Your task to perform on an android device: Find coffee shops on Maps Image 0: 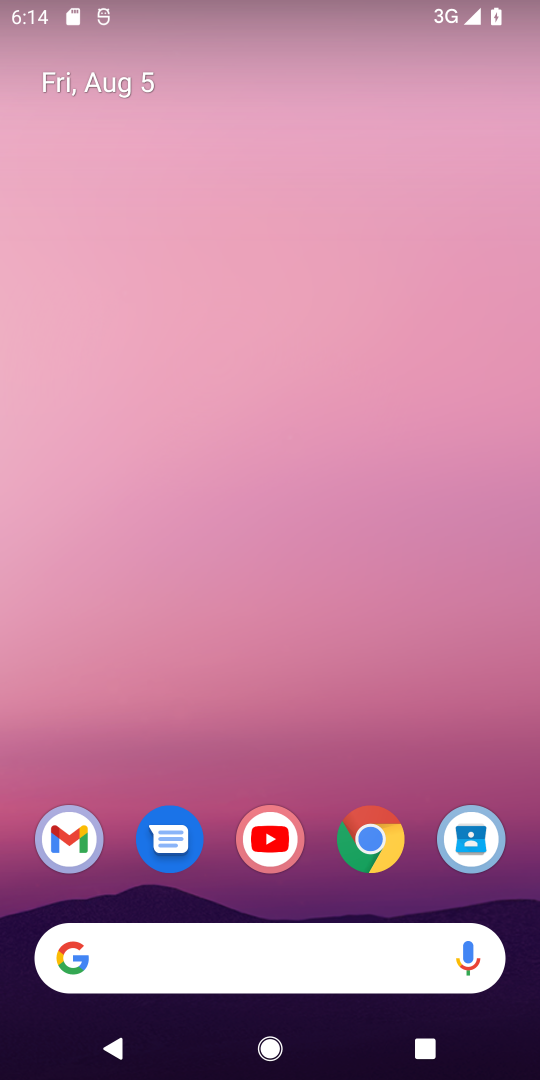
Step 0: drag from (328, 576) to (328, 88)
Your task to perform on an android device: Find coffee shops on Maps Image 1: 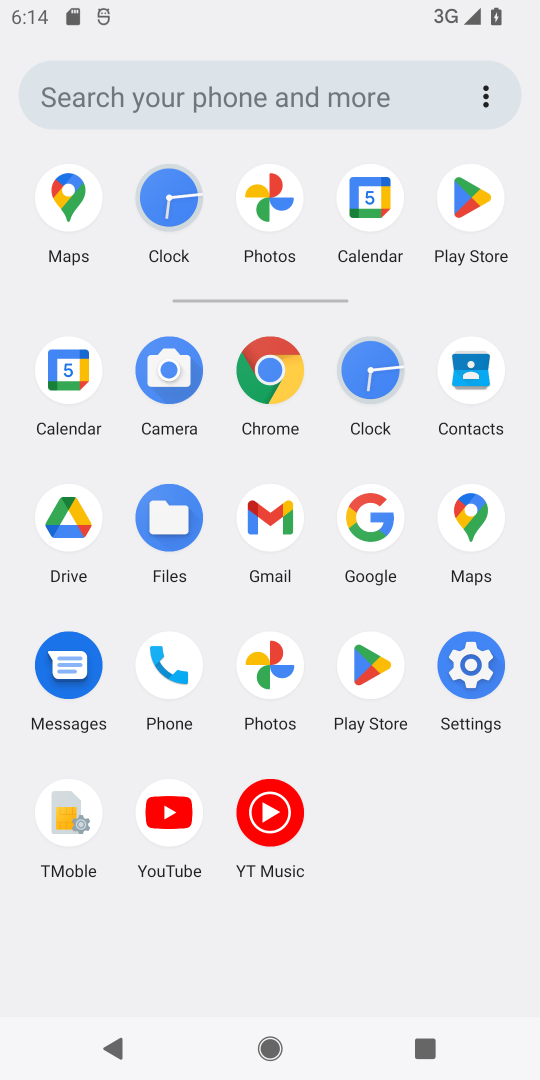
Step 1: click (460, 514)
Your task to perform on an android device: Find coffee shops on Maps Image 2: 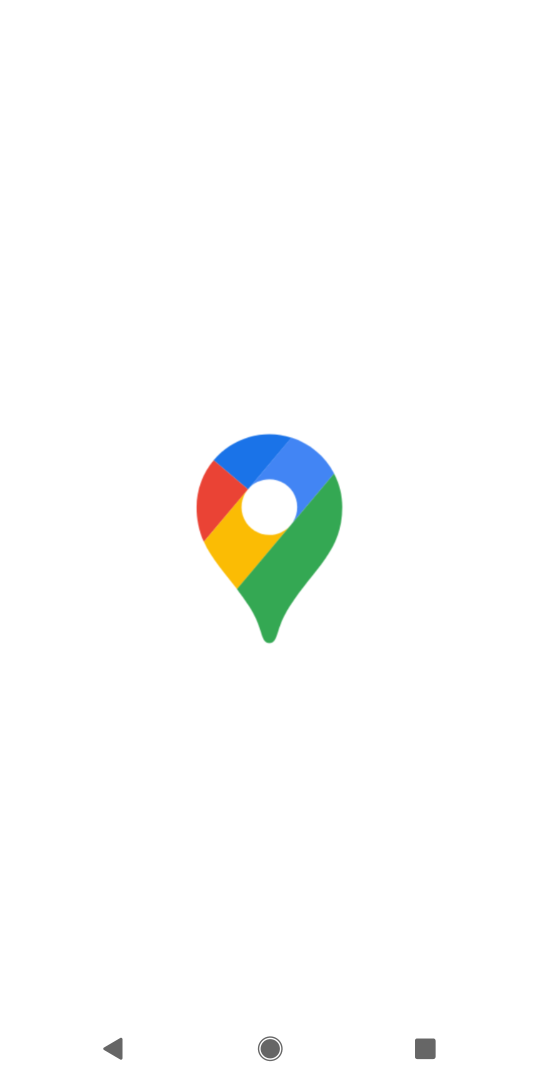
Step 2: task complete